Your task to perform on an android device: Search for seafood restaurants on Google Maps Image 0: 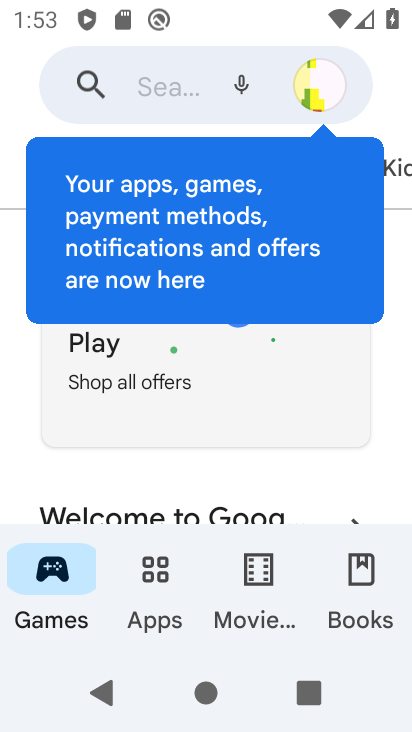
Step 0: press home button
Your task to perform on an android device: Search for seafood restaurants on Google Maps Image 1: 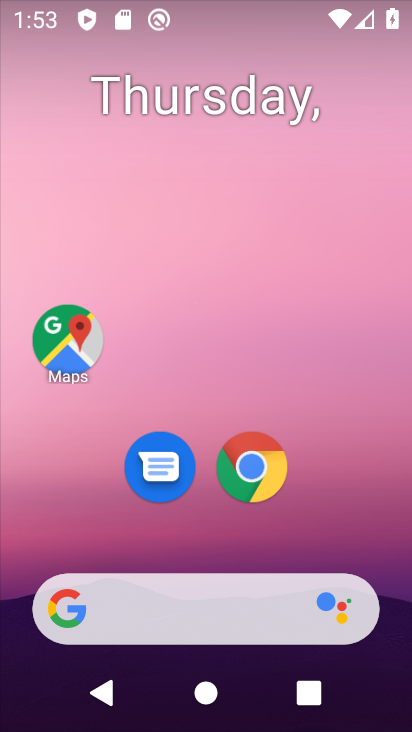
Step 1: drag from (295, 505) to (312, 41)
Your task to perform on an android device: Search for seafood restaurants on Google Maps Image 2: 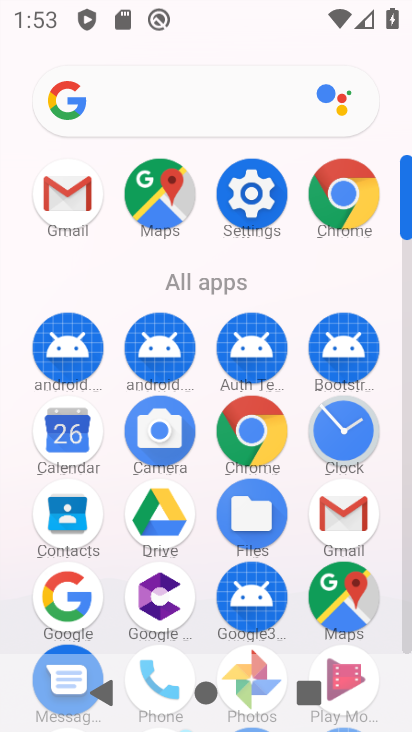
Step 2: click (326, 600)
Your task to perform on an android device: Search for seafood restaurants on Google Maps Image 3: 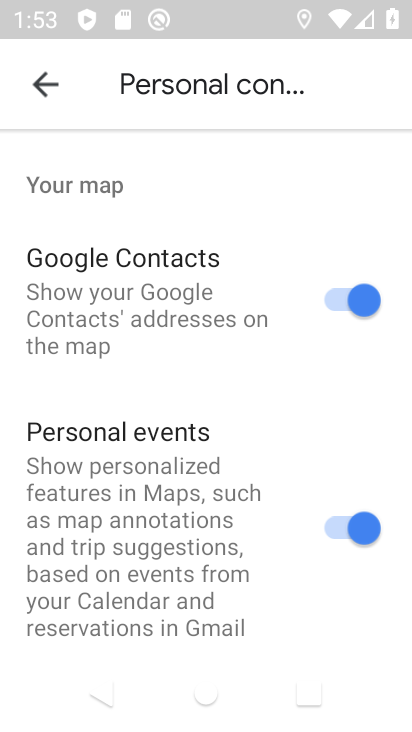
Step 3: click (48, 96)
Your task to perform on an android device: Search for seafood restaurants on Google Maps Image 4: 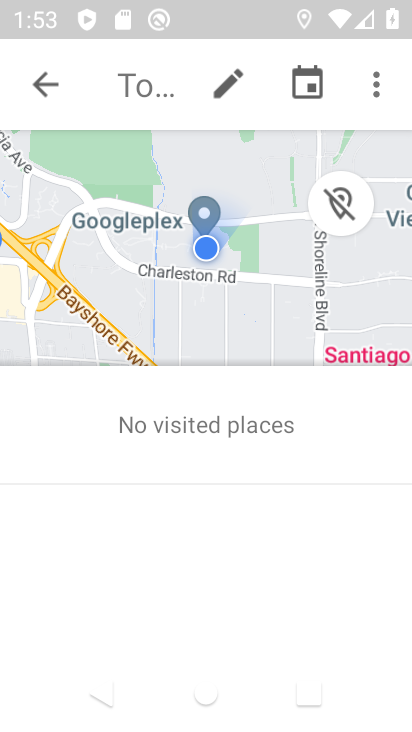
Step 4: click (47, 94)
Your task to perform on an android device: Search for seafood restaurants on Google Maps Image 5: 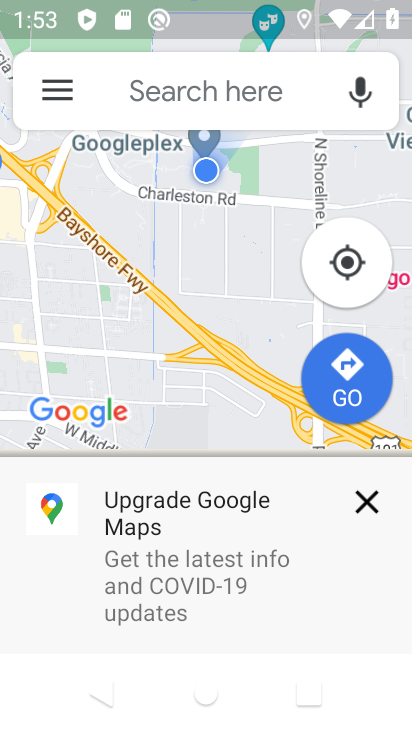
Step 5: click (159, 89)
Your task to perform on an android device: Search for seafood restaurants on Google Maps Image 6: 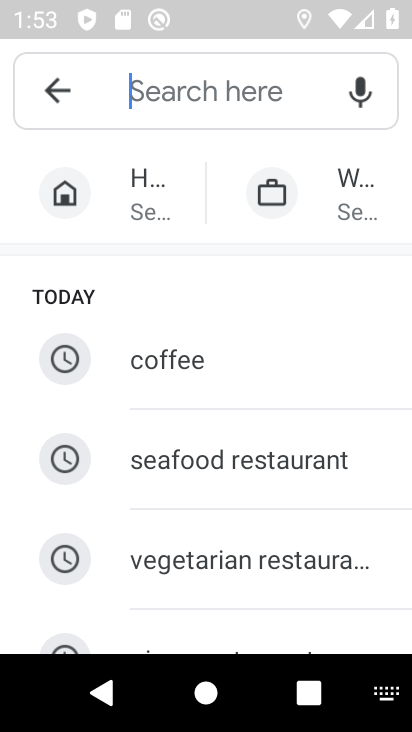
Step 6: click (304, 467)
Your task to perform on an android device: Search for seafood restaurants on Google Maps Image 7: 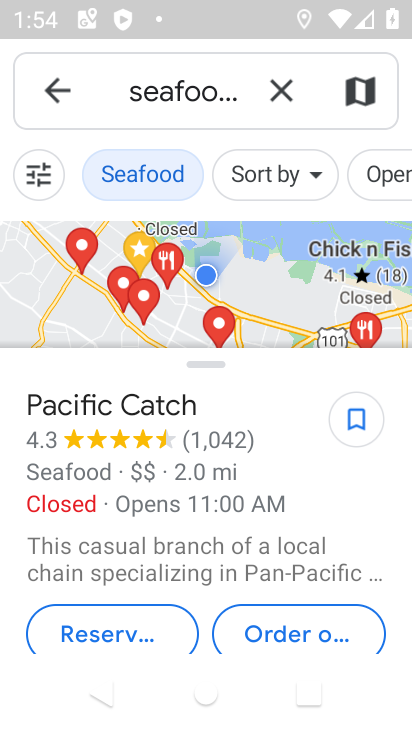
Step 7: task complete